Your task to perform on an android device: When is my next meeting? Image 0: 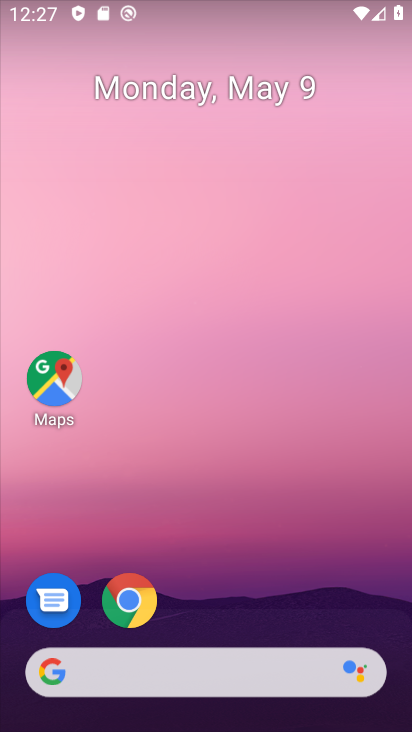
Step 0: click (141, 588)
Your task to perform on an android device: When is my next meeting? Image 1: 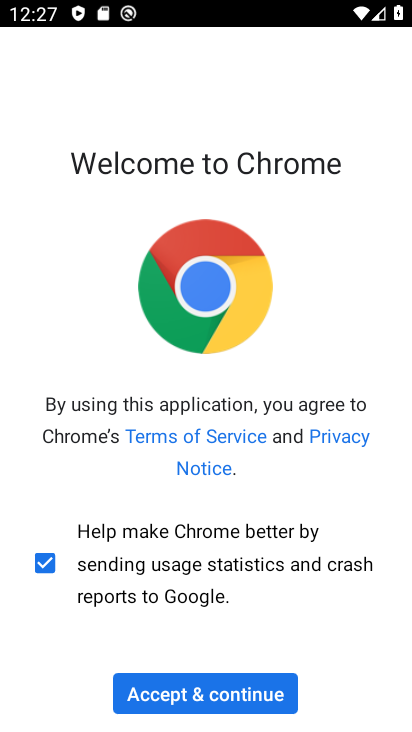
Step 1: press home button
Your task to perform on an android device: When is my next meeting? Image 2: 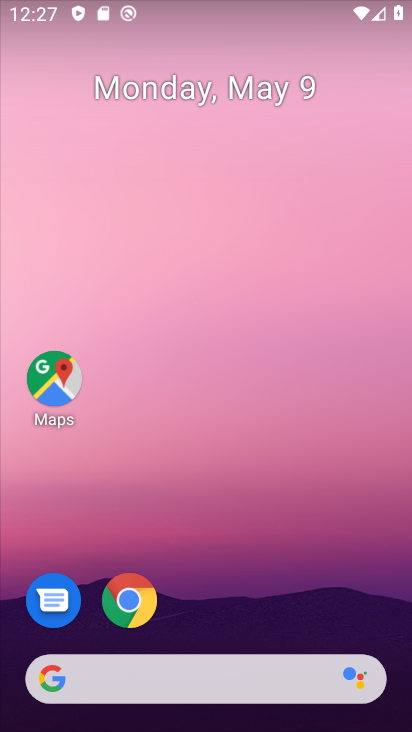
Step 2: drag from (342, 522) to (339, 214)
Your task to perform on an android device: When is my next meeting? Image 3: 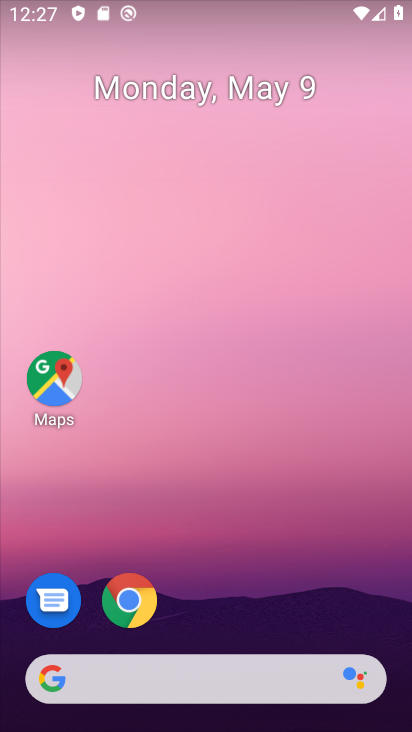
Step 3: drag from (203, 599) to (236, 11)
Your task to perform on an android device: When is my next meeting? Image 4: 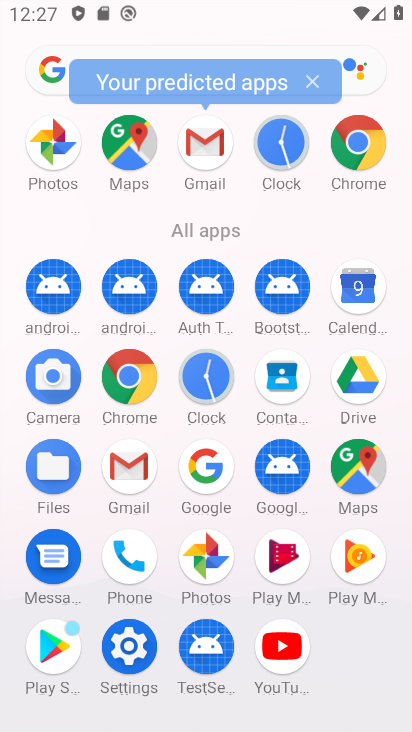
Step 4: click (349, 281)
Your task to perform on an android device: When is my next meeting? Image 5: 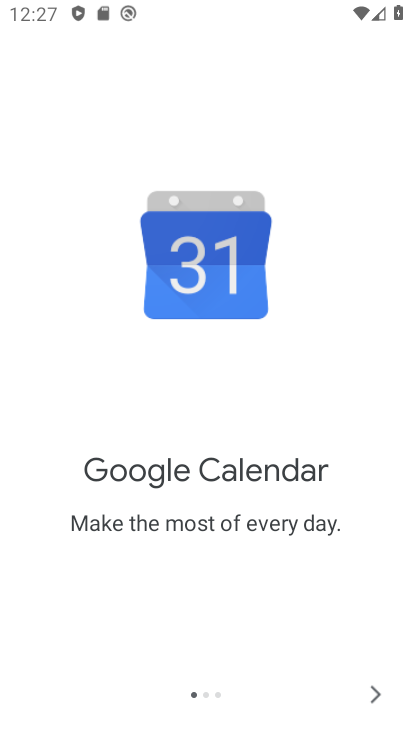
Step 5: click (368, 682)
Your task to perform on an android device: When is my next meeting? Image 6: 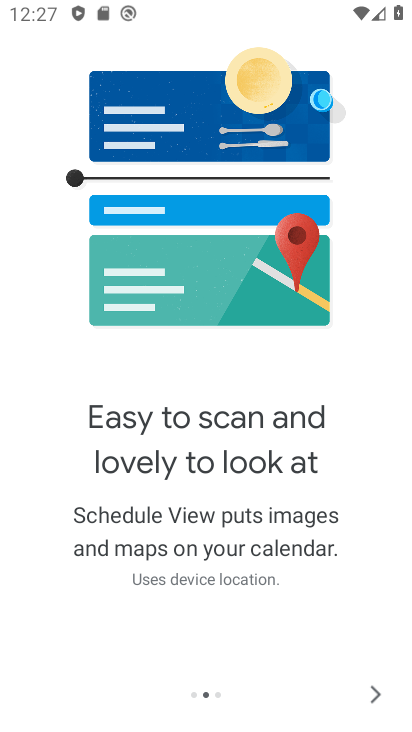
Step 6: click (368, 682)
Your task to perform on an android device: When is my next meeting? Image 7: 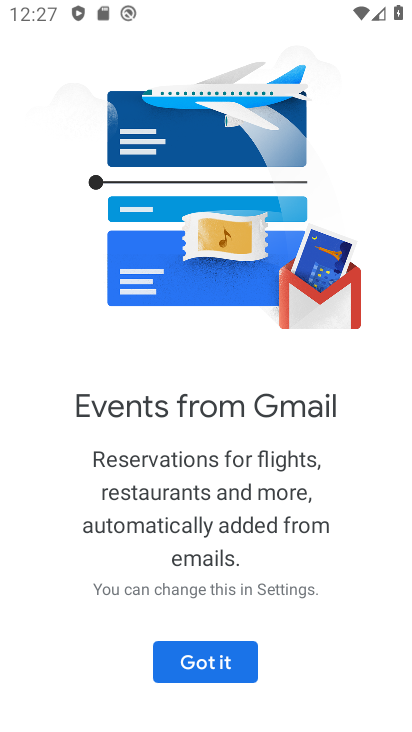
Step 7: click (368, 682)
Your task to perform on an android device: When is my next meeting? Image 8: 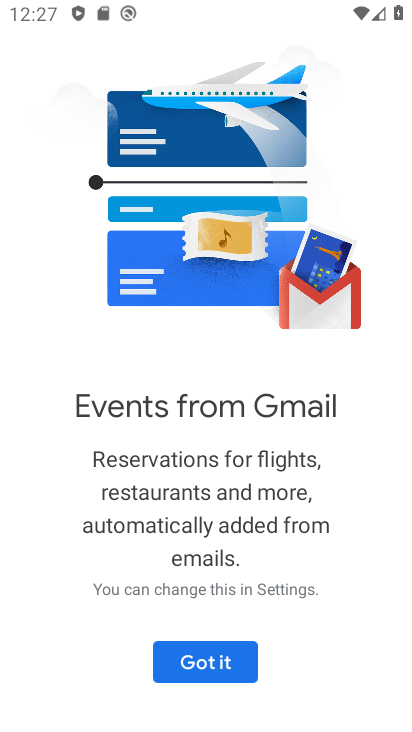
Step 8: click (223, 669)
Your task to perform on an android device: When is my next meeting? Image 9: 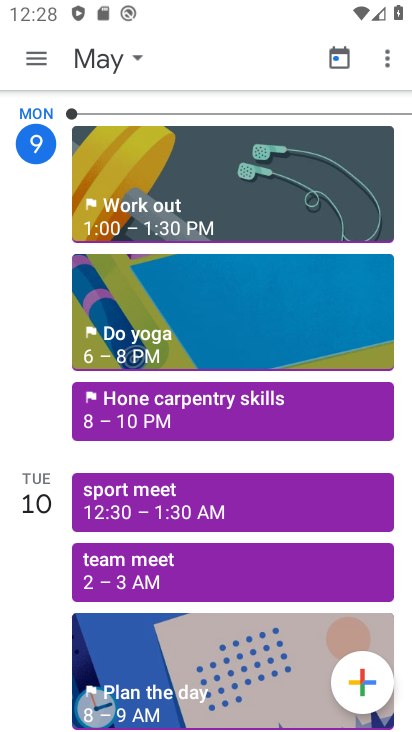
Step 9: click (38, 45)
Your task to perform on an android device: When is my next meeting? Image 10: 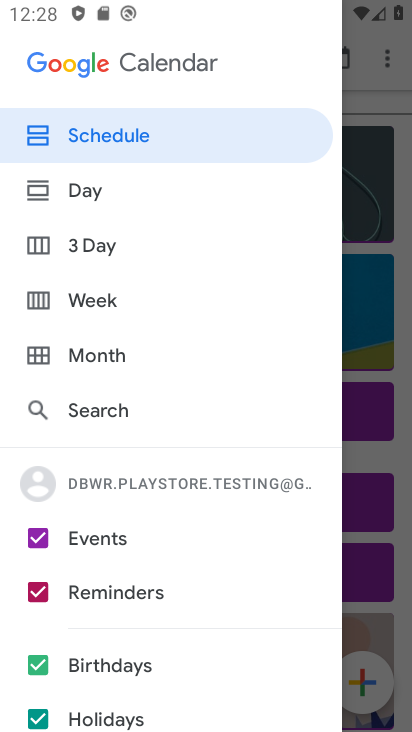
Step 10: click (67, 142)
Your task to perform on an android device: When is my next meeting? Image 11: 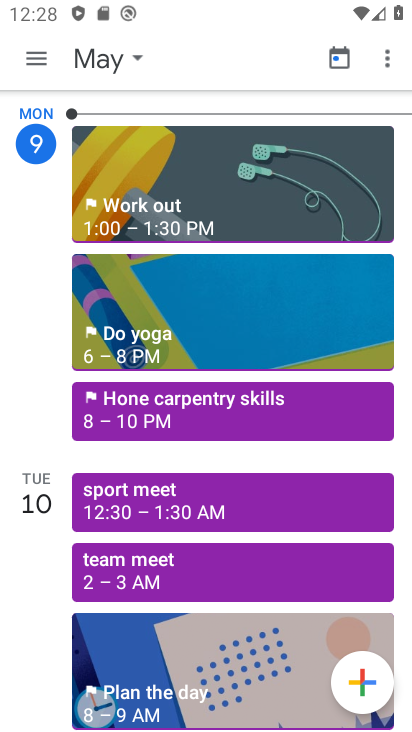
Step 11: task complete